Your task to perform on an android device: install app "DuckDuckGo Privacy Browser" Image 0: 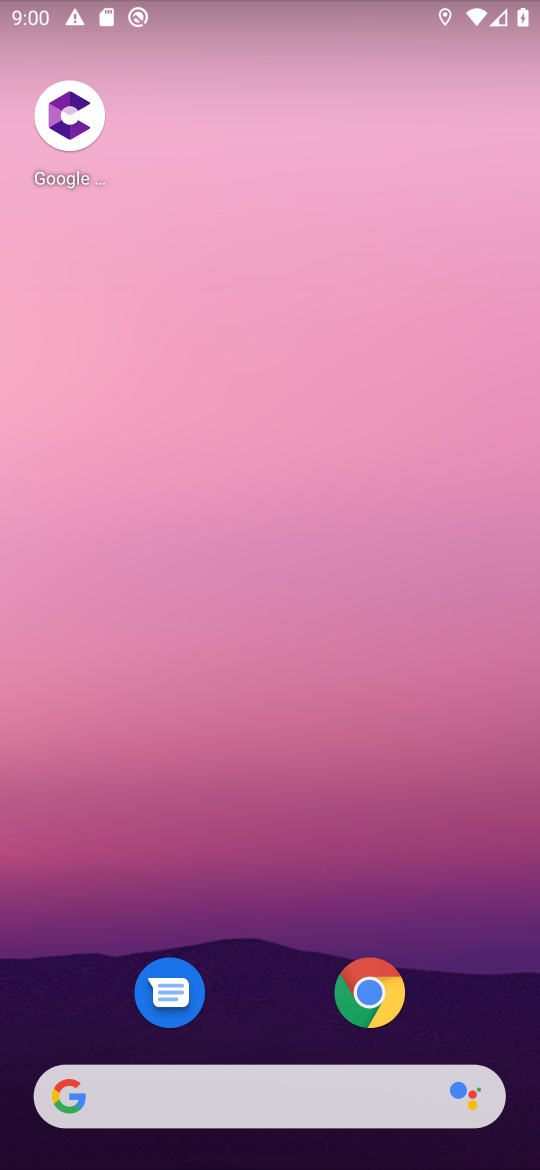
Step 0: drag from (276, 1061) to (272, 0)
Your task to perform on an android device: install app "DuckDuckGo Privacy Browser" Image 1: 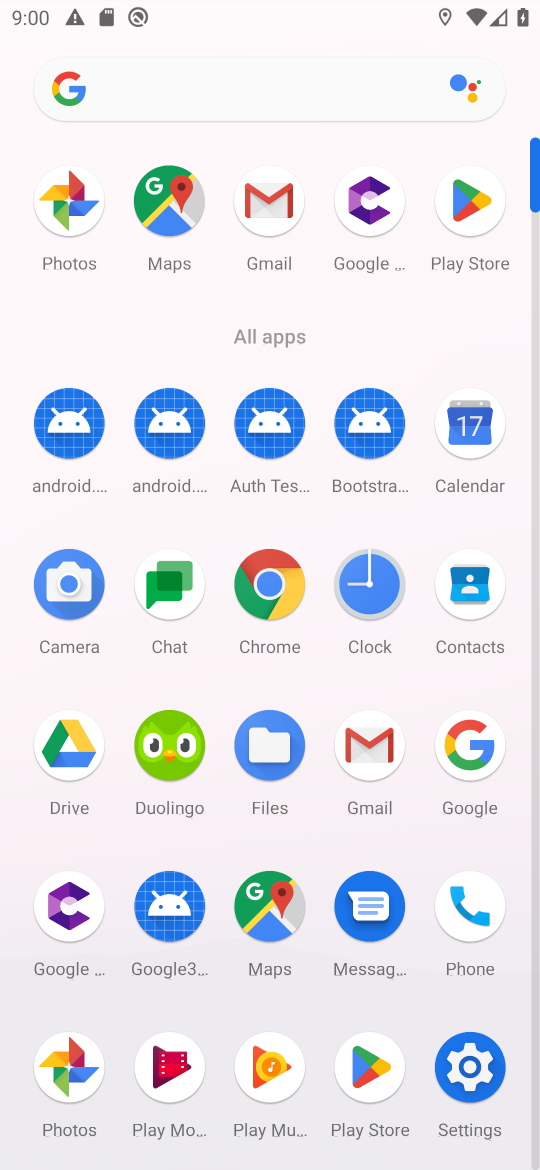
Step 1: click (478, 204)
Your task to perform on an android device: install app "DuckDuckGo Privacy Browser" Image 2: 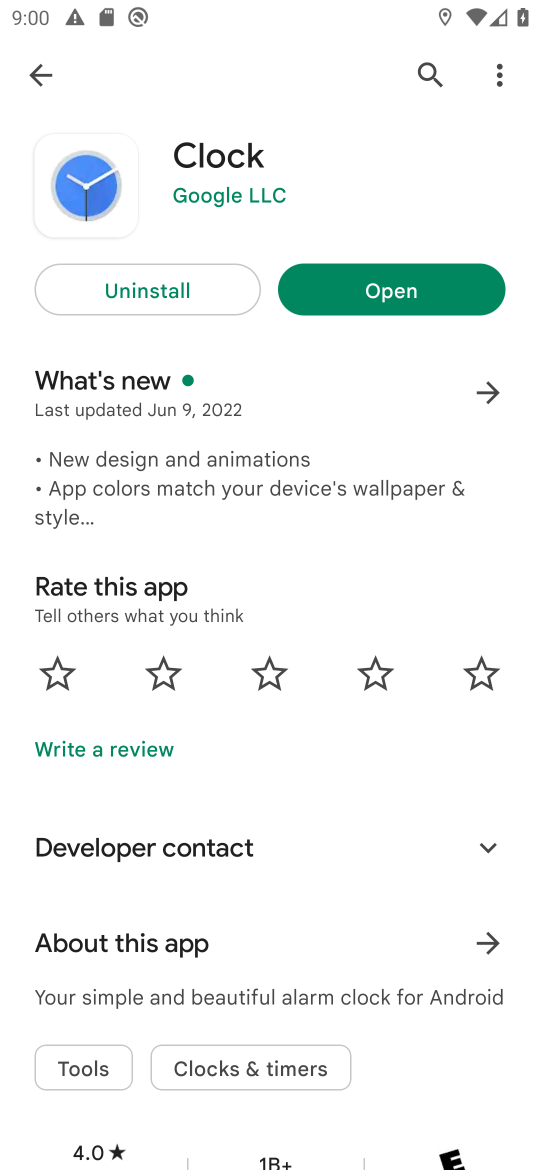
Step 2: press back button
Your task to perform on an android device: install app "DuckDuckGo Privacy Browser" Image 3: 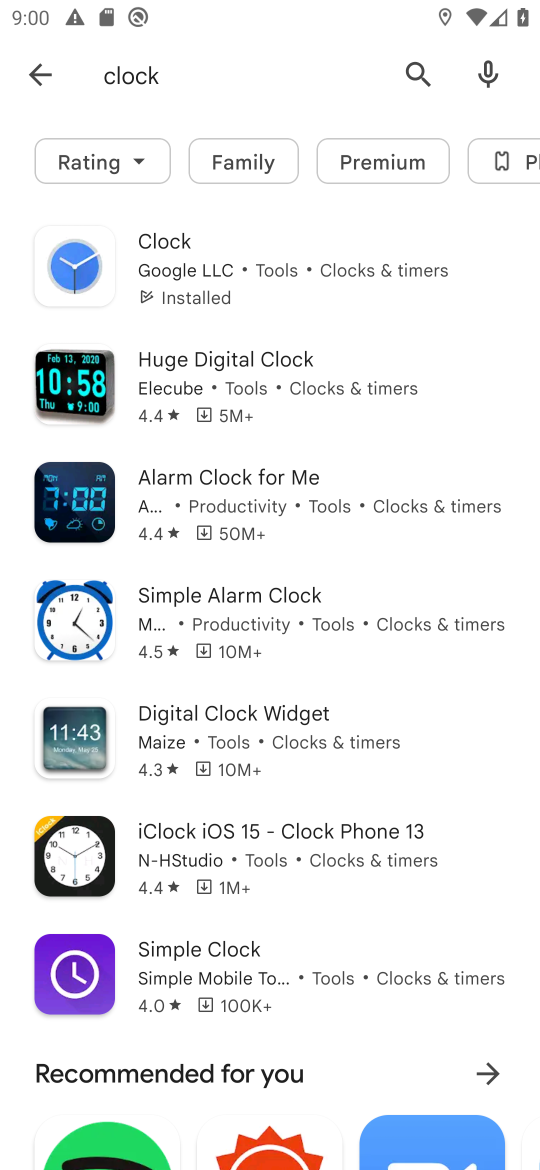
Step 3: press back button
Your task to perform on an android device: install app "DuckDuckGo Privacy Browser" Image 4: 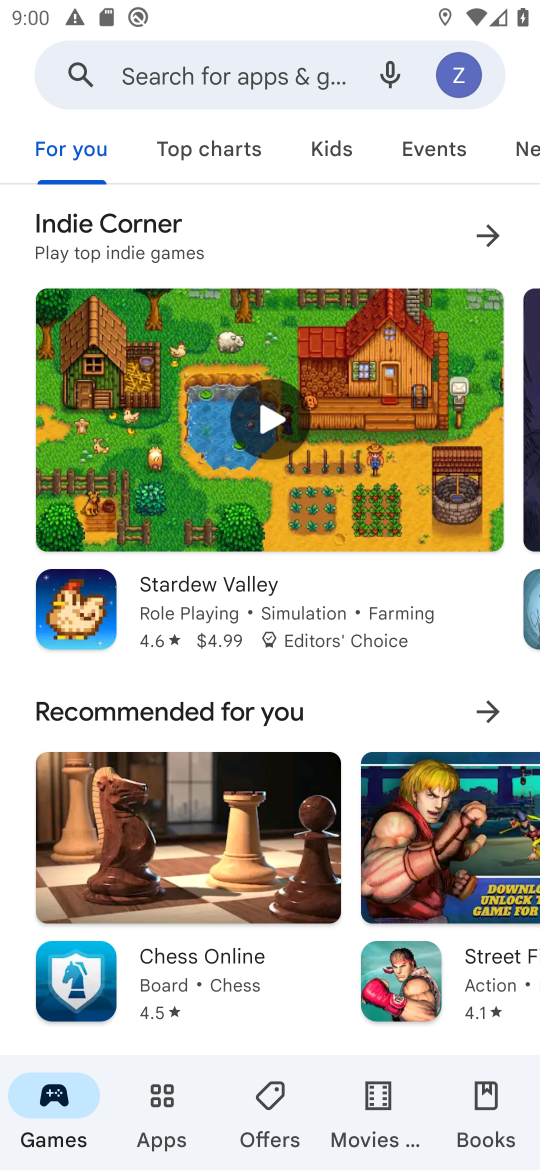
Step 4: click (198, 65)
Your task to perform on an android device: install app "DuckDuckGo Privacy Browser" Image 5: 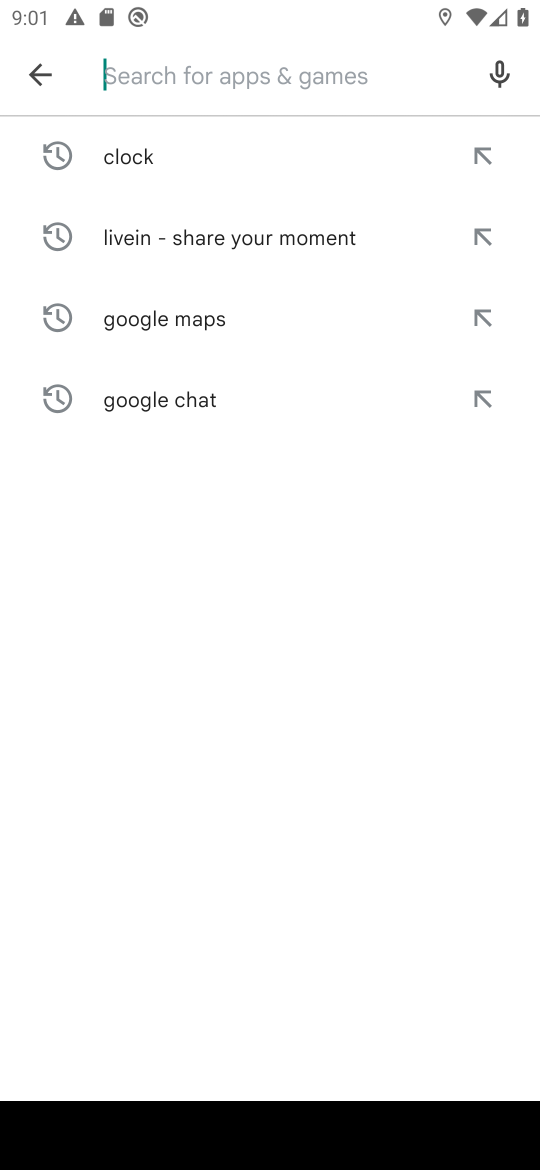
Step 5: type "DuckDuckGo Privacy Browser"
Your task to perform on an android device: install app "DuckDuckGo Privacy Browser" Image 6: 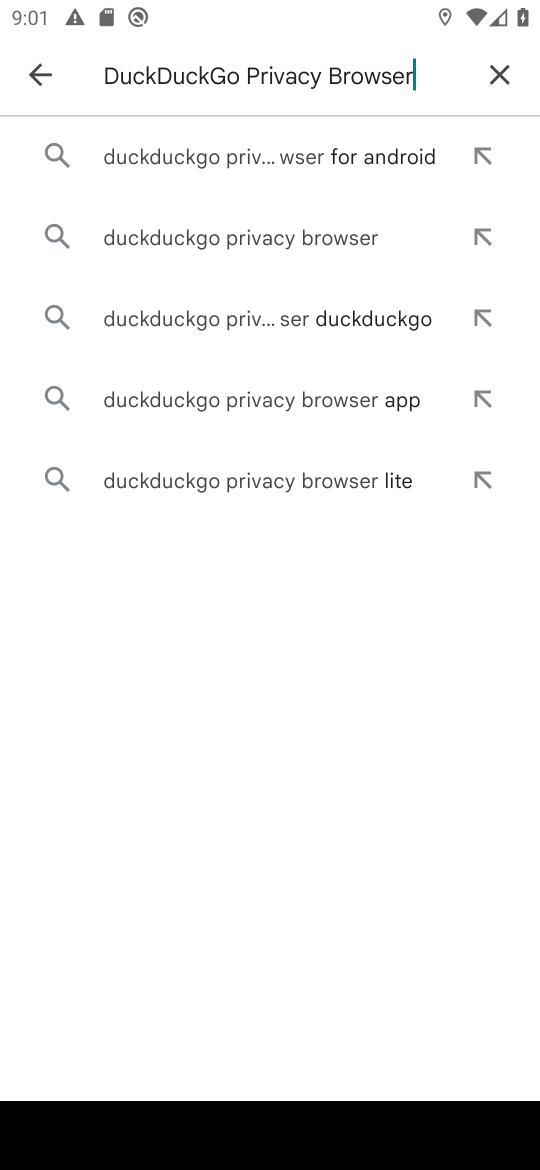
Step 6: click (204, 230)
Your task to perform on an android device: install app "DuckDuckGo Privacy Browser" Image 7: 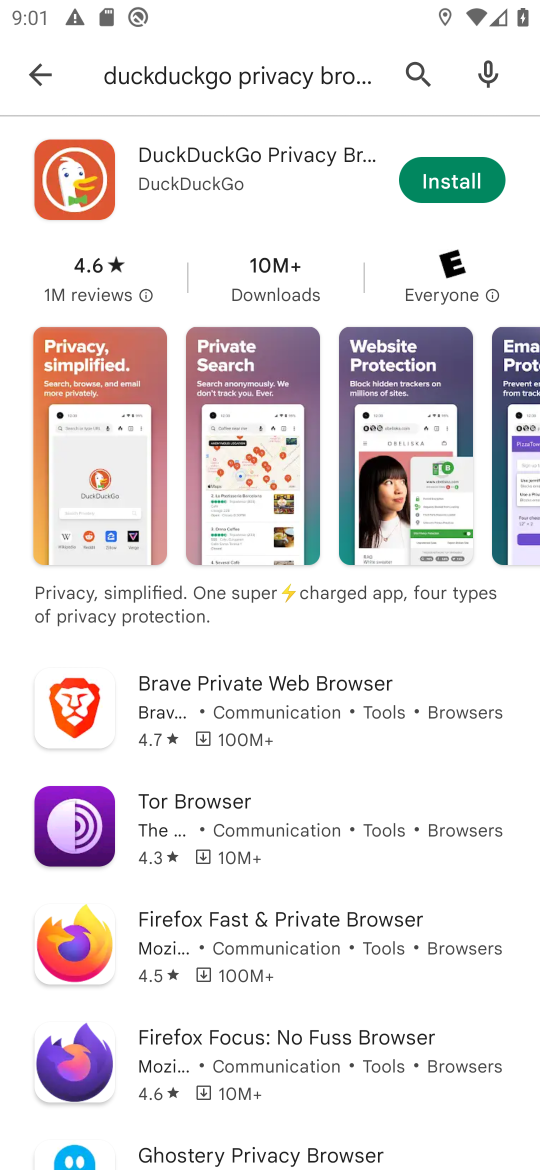
Step 7: click (462, 197)
Your task to perform on an android device: install app "DuckDuckGo Privacy Browser" Image 8: 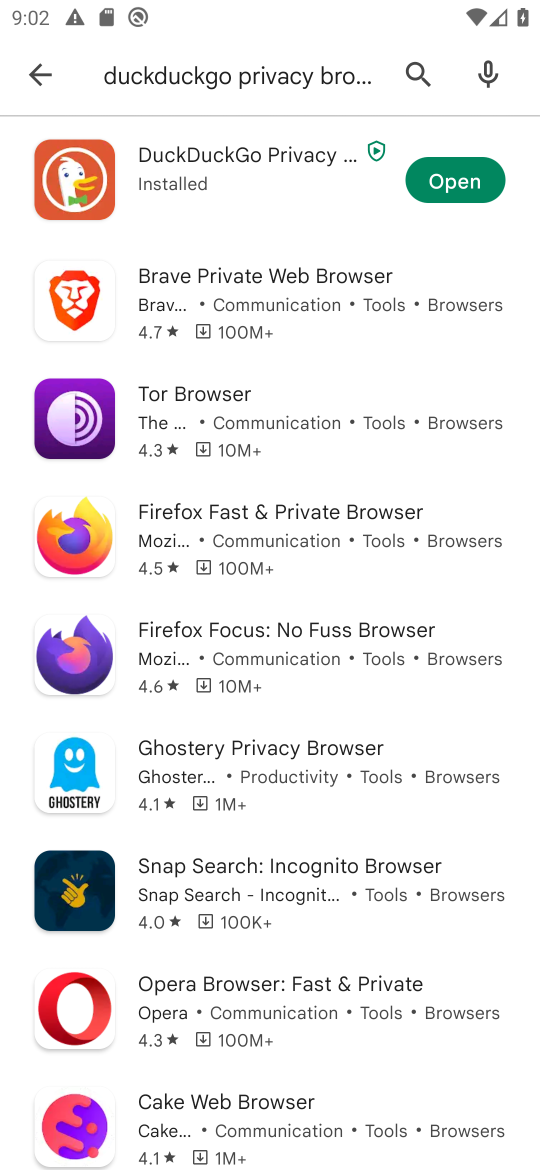
Step 8: task complete